Your task to perform on an android device: turn on airplane mode Image 0: 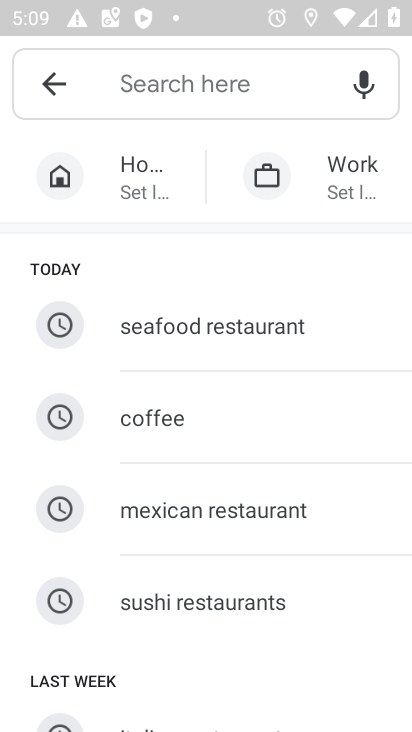
Step 0: press home button
Your task to perform on an android device: turn on airplane mode Image 1: 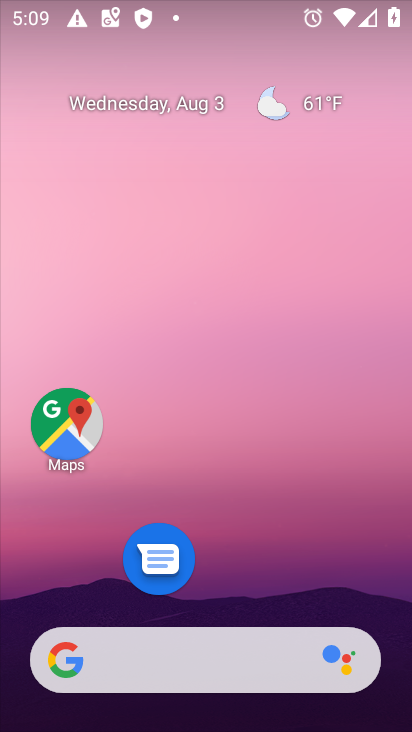
Step 1: drag from (197, 625) to (191, 129)
Your task to perform on an android device: turn on airplane mode Image 2: 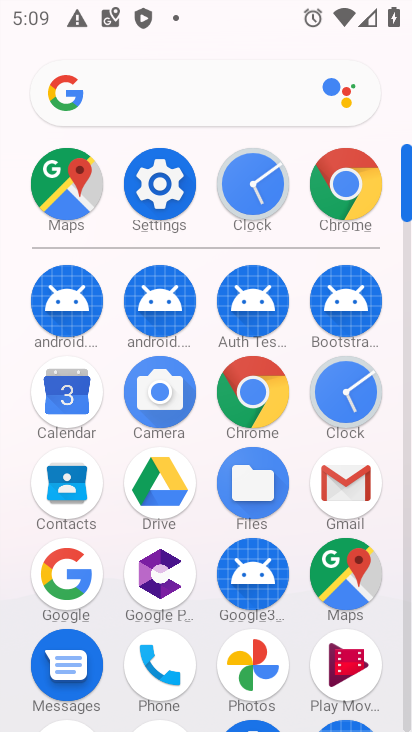
Step 2: click (159, 211)
Your task to perform on an android device: turn on airplane mode Image 3: 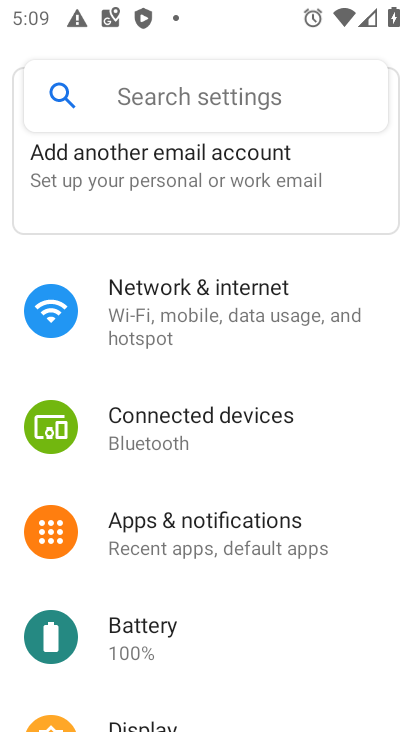
Step 3: click (199, 314)
Your task to perform on an android device: turn on airplane mode Image 4: 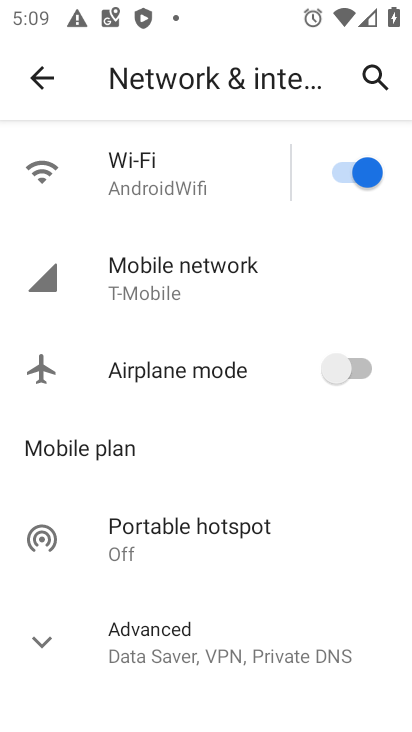
Step 4: click (358, 366)
Your task to perform on an android device: turn on airplane mode Image 5: 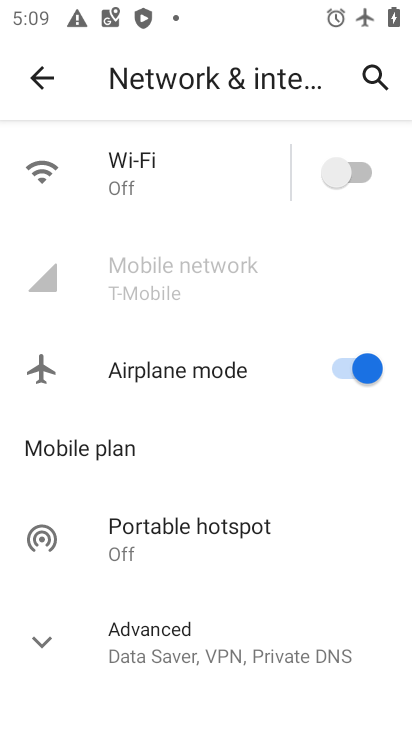
Step 5: task complete